Your task to perform on an android device: Clear the shopping cart on ebay. Add logitech g pro to the cart on ebay, then select checkout. Image 0: 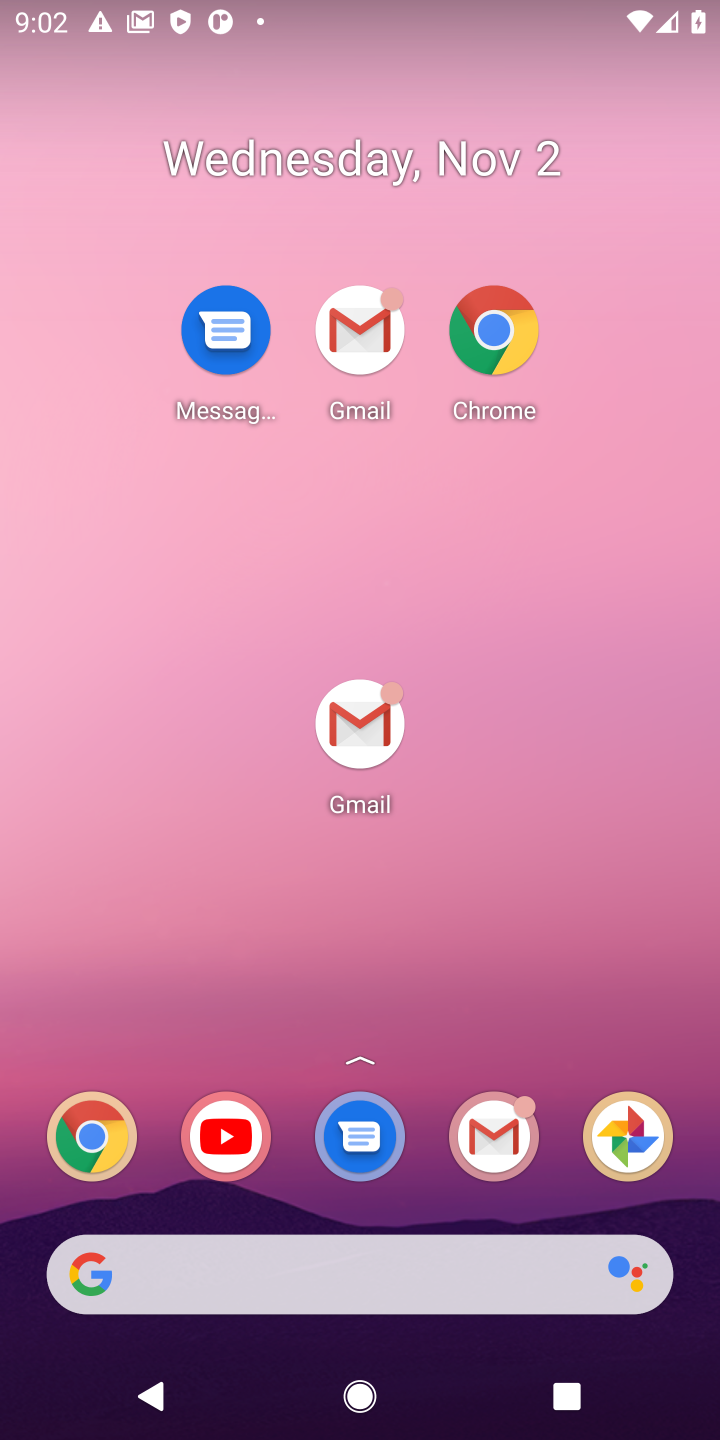
Step 0: drag from (272, 1222) to (274, 64)
Your task to perform on an android device: Clear the shopping cart on ebay. Add logitech g pro to the cart on ebay, then select checkout. Image 1: 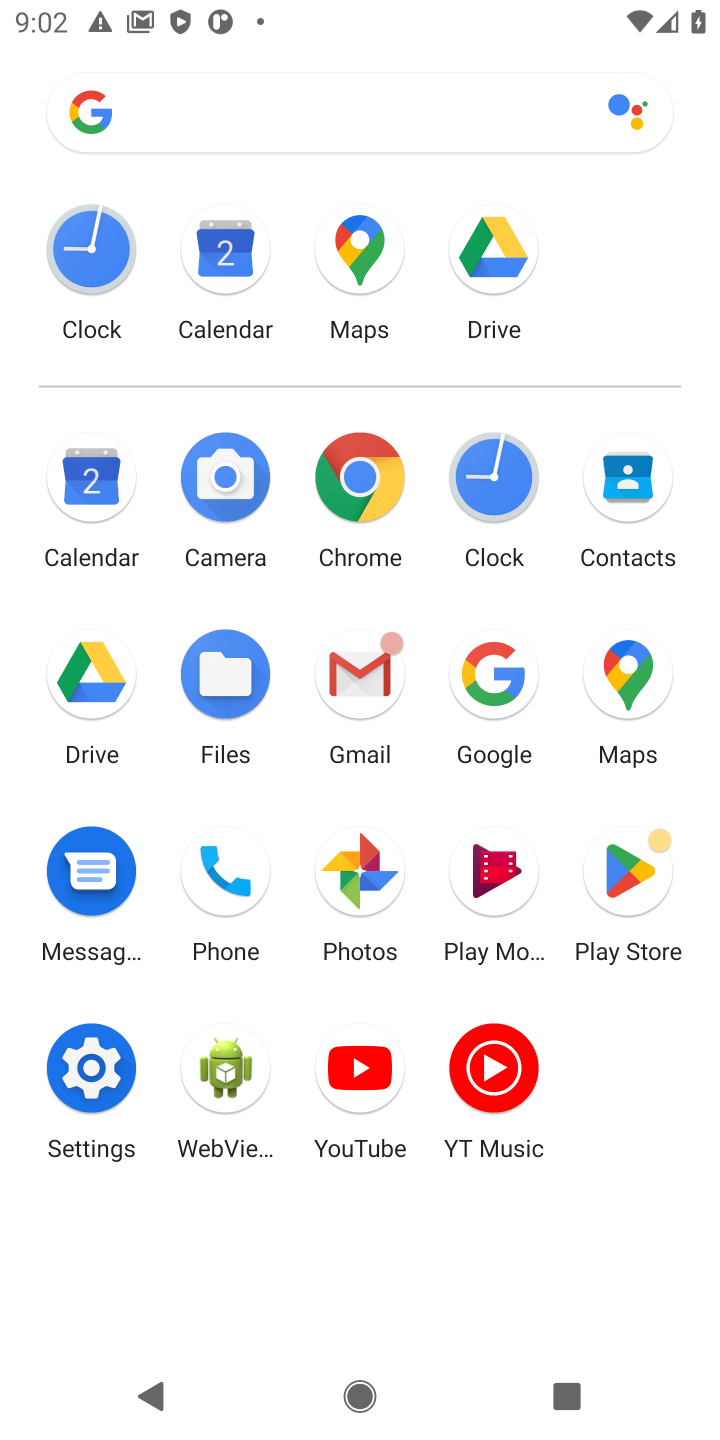
Step 1: click (489, 648)
Your task to perform on an android device: Clear the shopping cart on ebay. Add logitech g pro to the cart on ebay, then select checkout. Image 2: 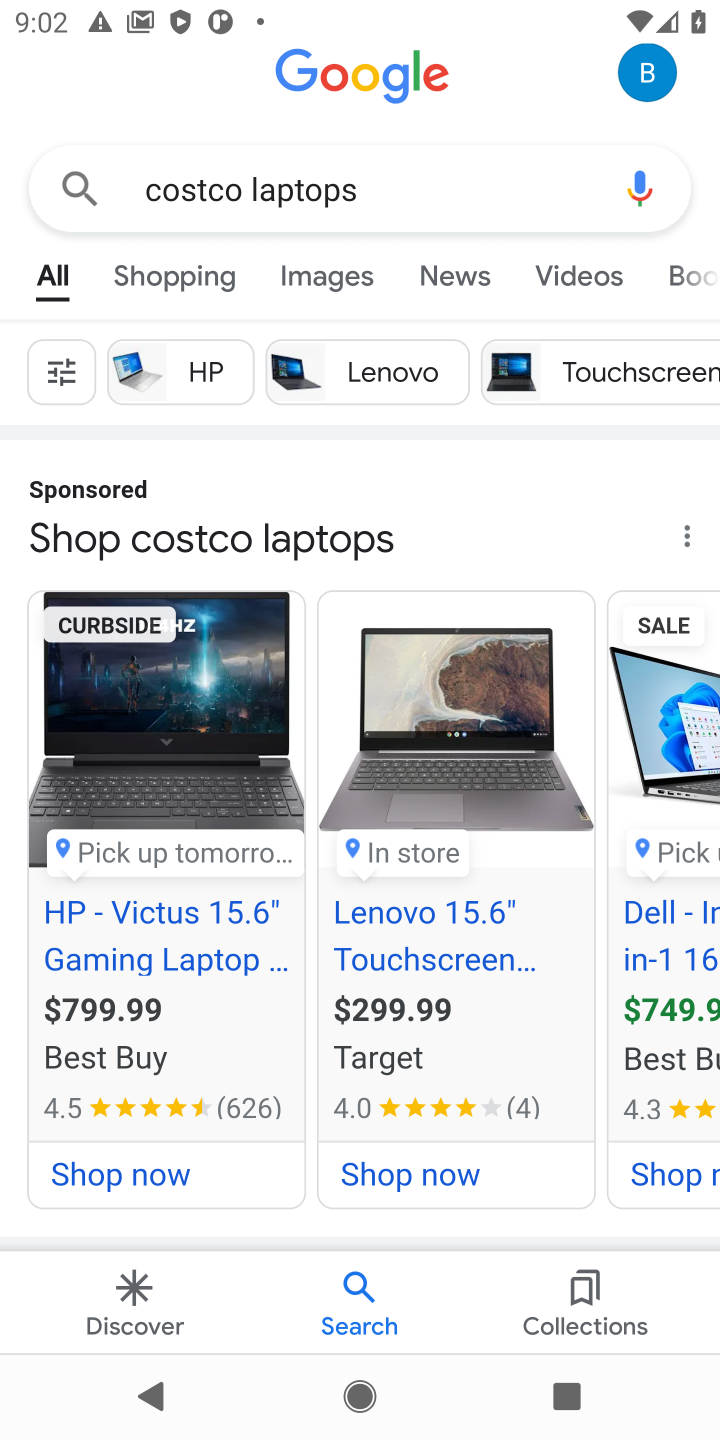
Step 2: click (421, 183)
Your task to perform on an android device: Clear the shopping cart on ebay. Add logitech g pro to the cart on ebay, then select checkout. Image 3: 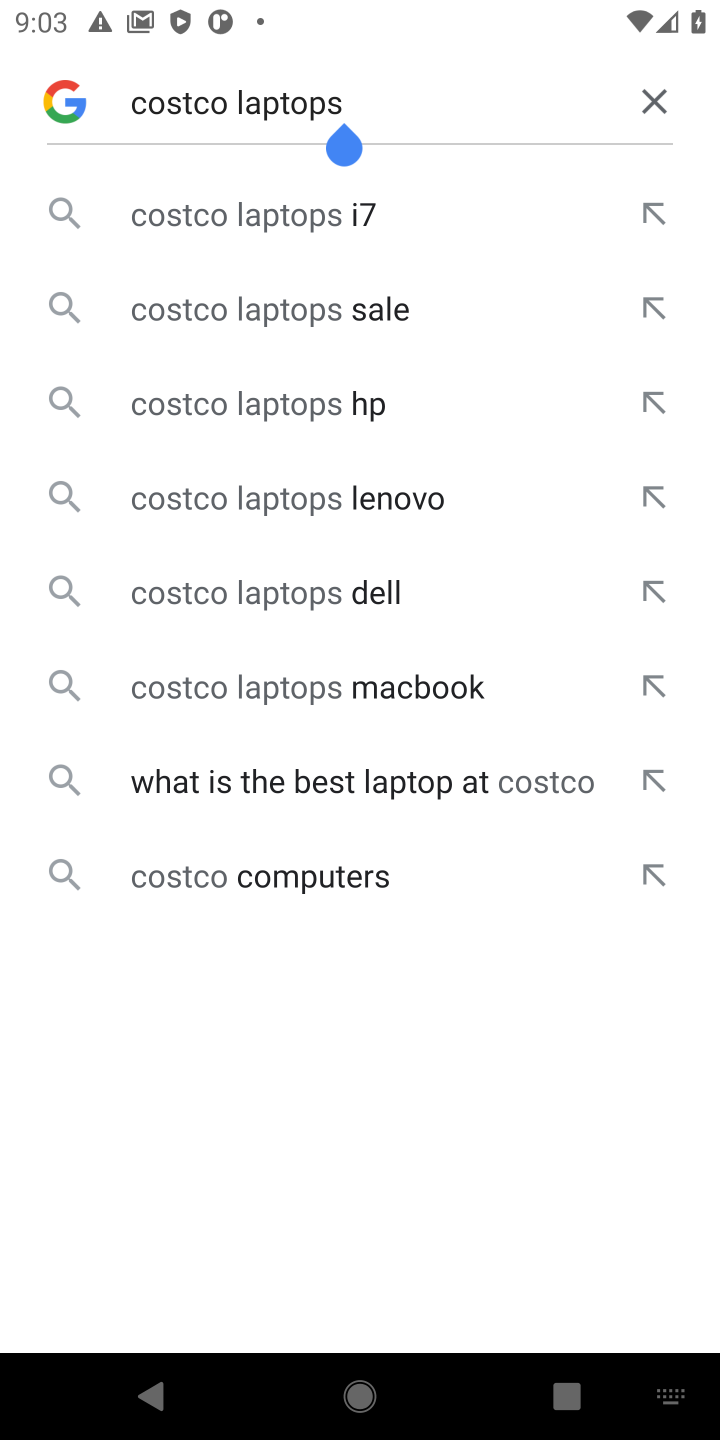
Step 3: click (654, 107)
Your task to perform on an android device: Clear the shopping cart on ebay. Add logitech g pro to the cart on ebay, then select checkout. Image 4: 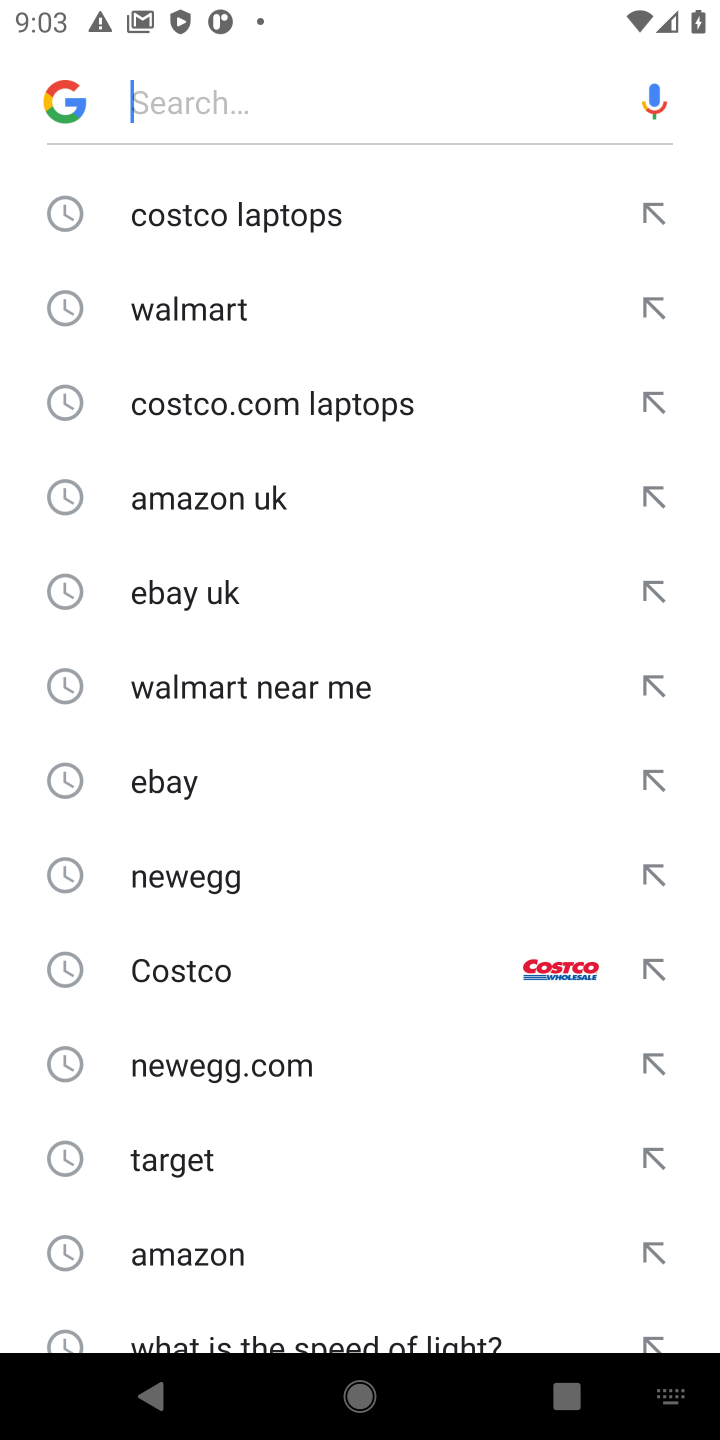
Step 4: click (297, 68)
Your task to perform on an android device: Clear the shopping cart on ebay. Add logitech g pro to the cart on ebay, then select checkout. Image 5: 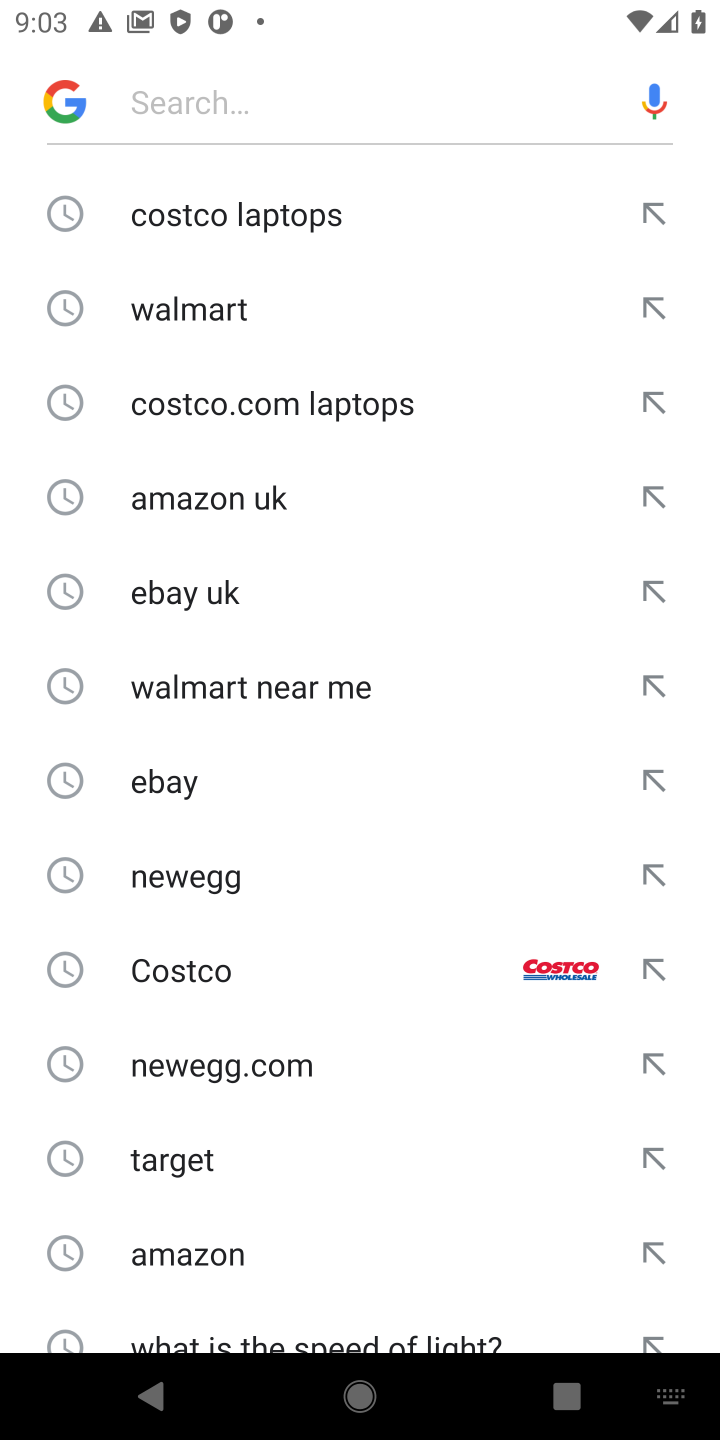
Step 5: type "ebay "
Your task to perform on an android device: Clear the shopping cart on ebay. Add logitech g pro to the cart on ebay, then select checkout. Image 6: 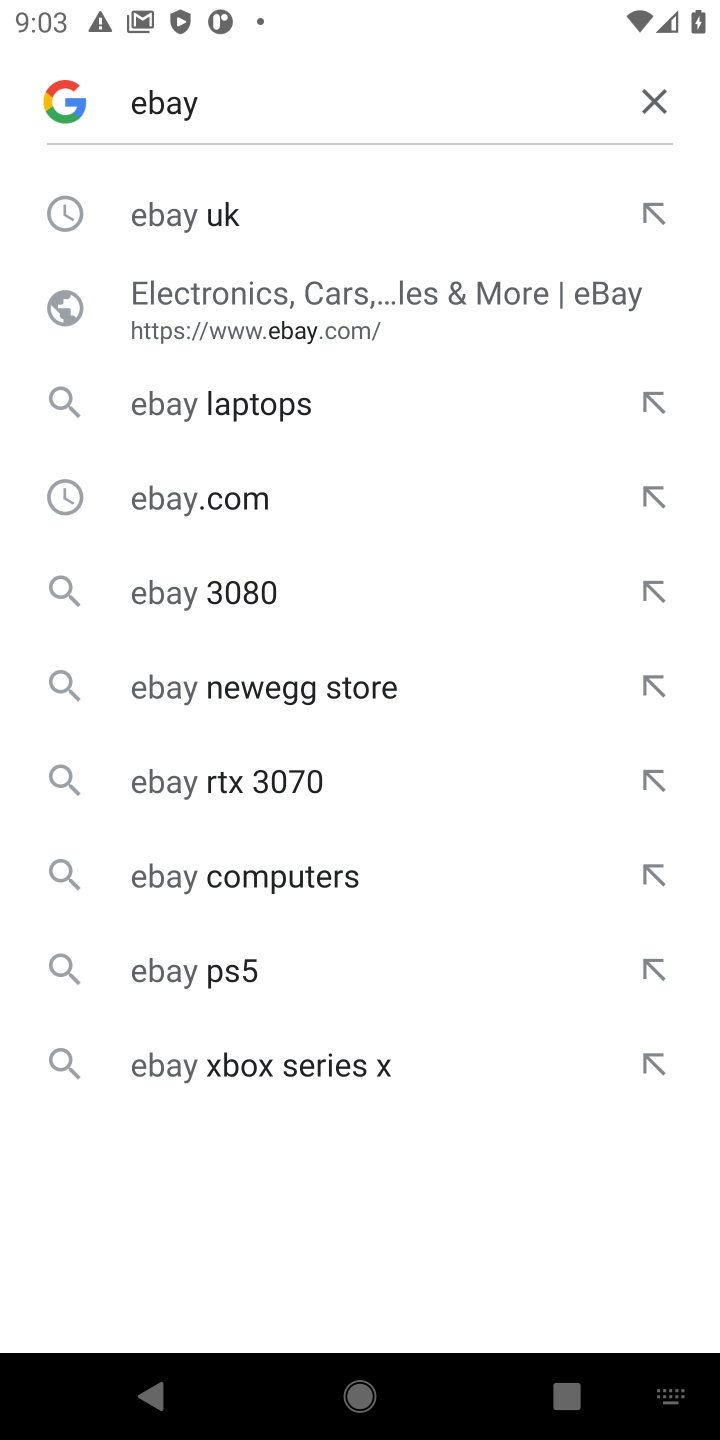
Step 6: click (174, 196)
Your task to perform on an android device: Clear the shopping cart on ebay. Add logitech g pro to the cart on ebay, then select checkout. Image 7: 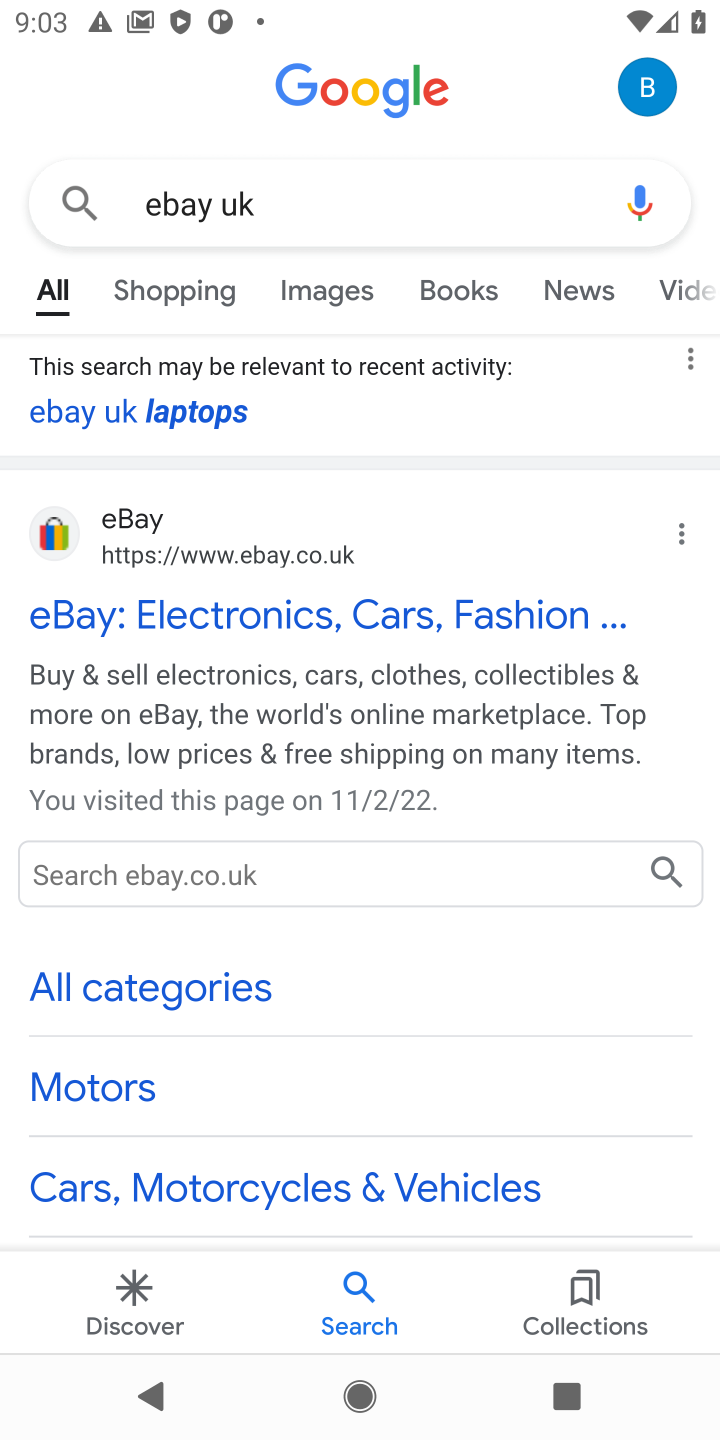
Step 7: click (46, 542)
Your task to perform on an android device: Clear the shopping cart on ebay. Add logitech g pro to the cart on ebay, then select checkout. Image 8: 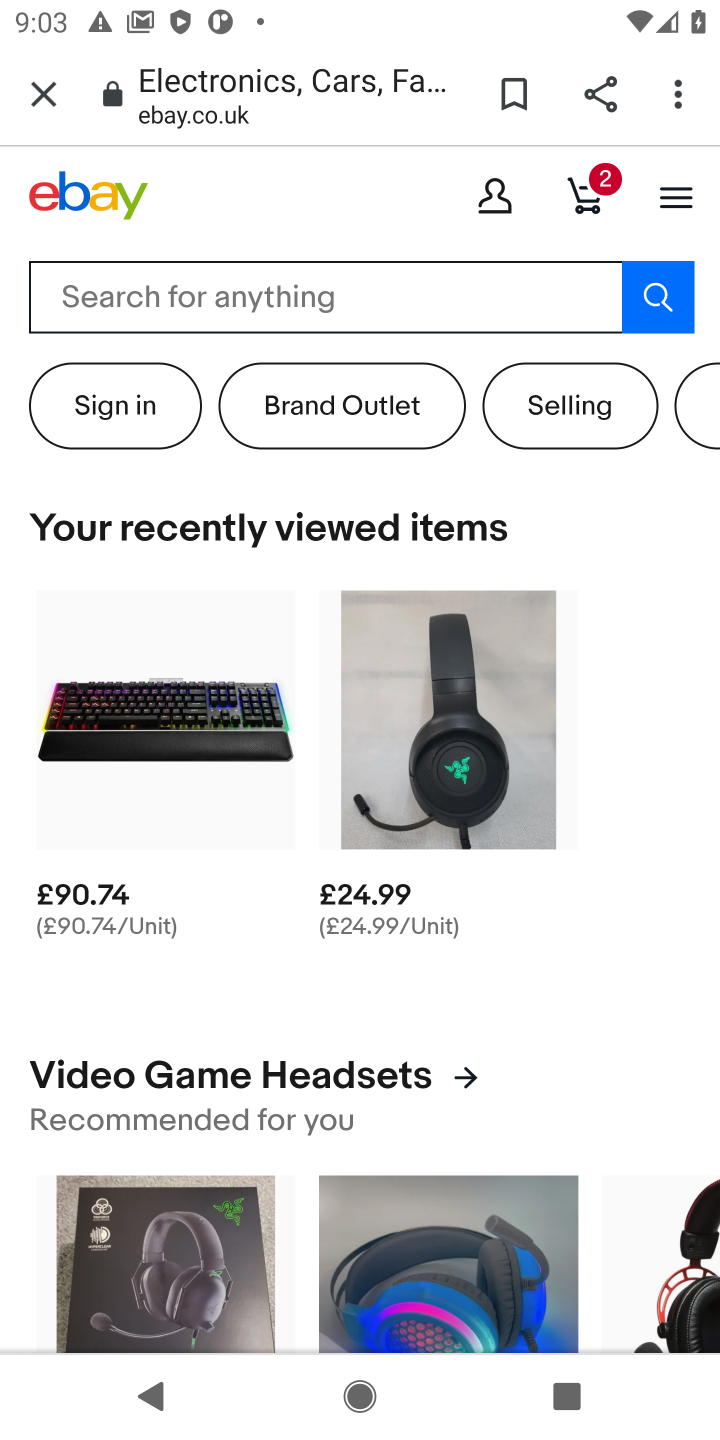
Step 8: click (308, 288)
Your task to perform on an android device: Clear the shopping cart on ebay. Add logitech g pro to the cart on ebay, then select checkout. Image 9: 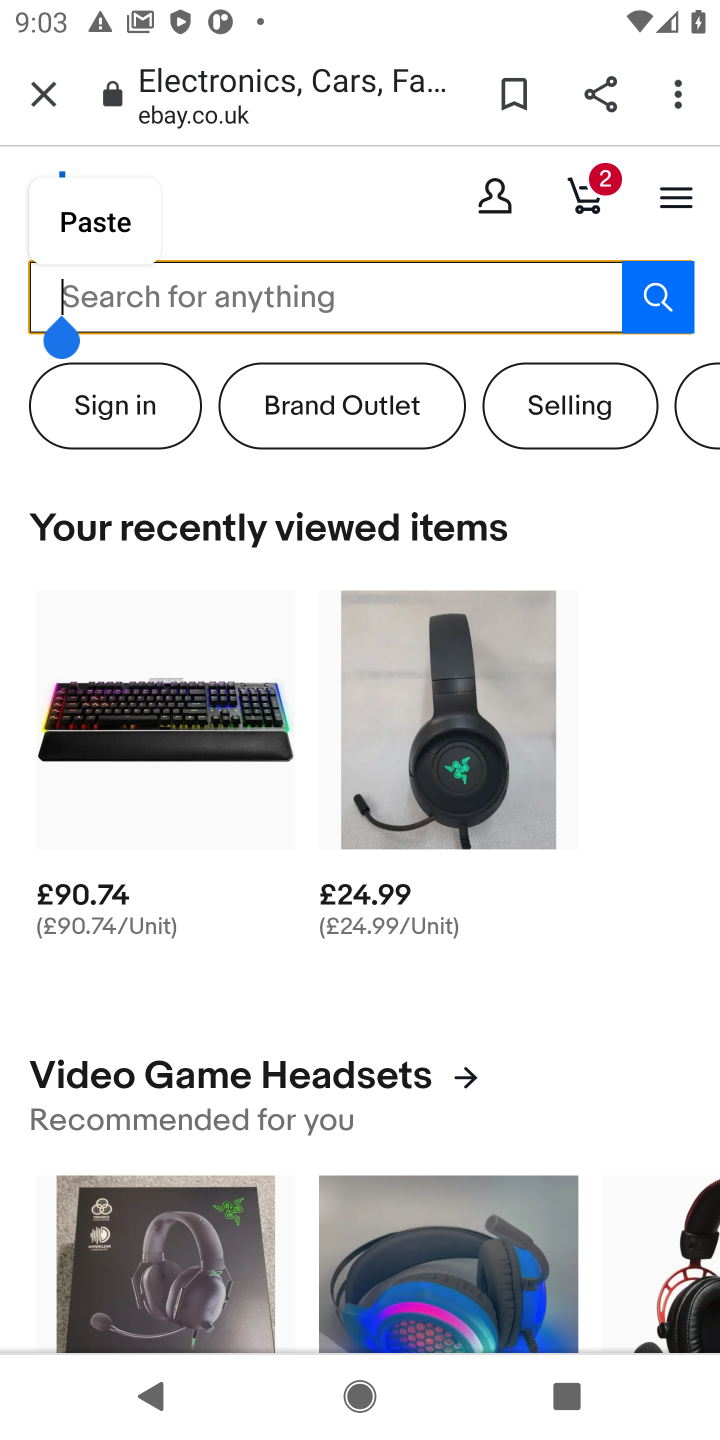
Step 9: click (335, 286)
Your task to perform on an android device: Clear the shopping cart on ebay. Add logitech g pro to the cart on ebay, then select checkout. Image 10: 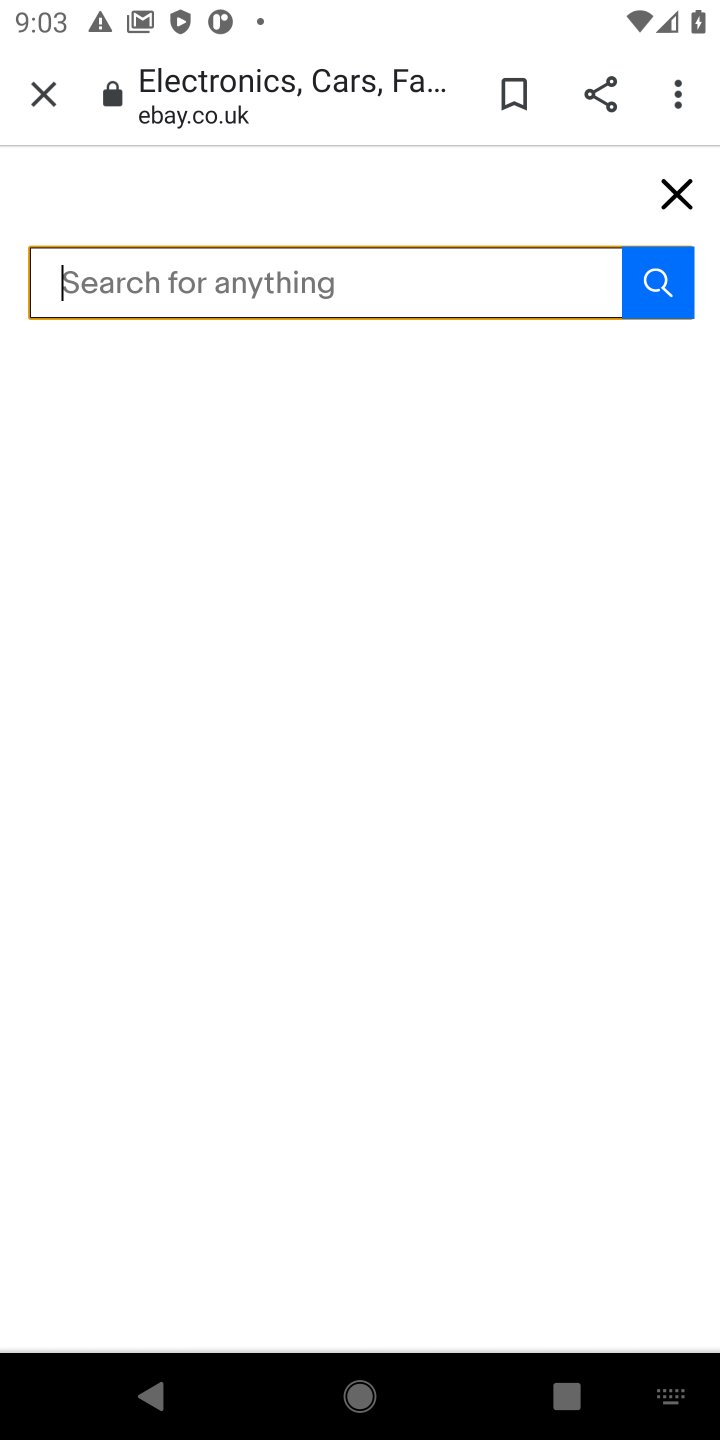
Step 10: type " logitech g pro  "
Your task to perform on an android device: Clear the shopping cart on ebay. Add logitech g pro to the cart on ebay, then select checkout. Image 11: 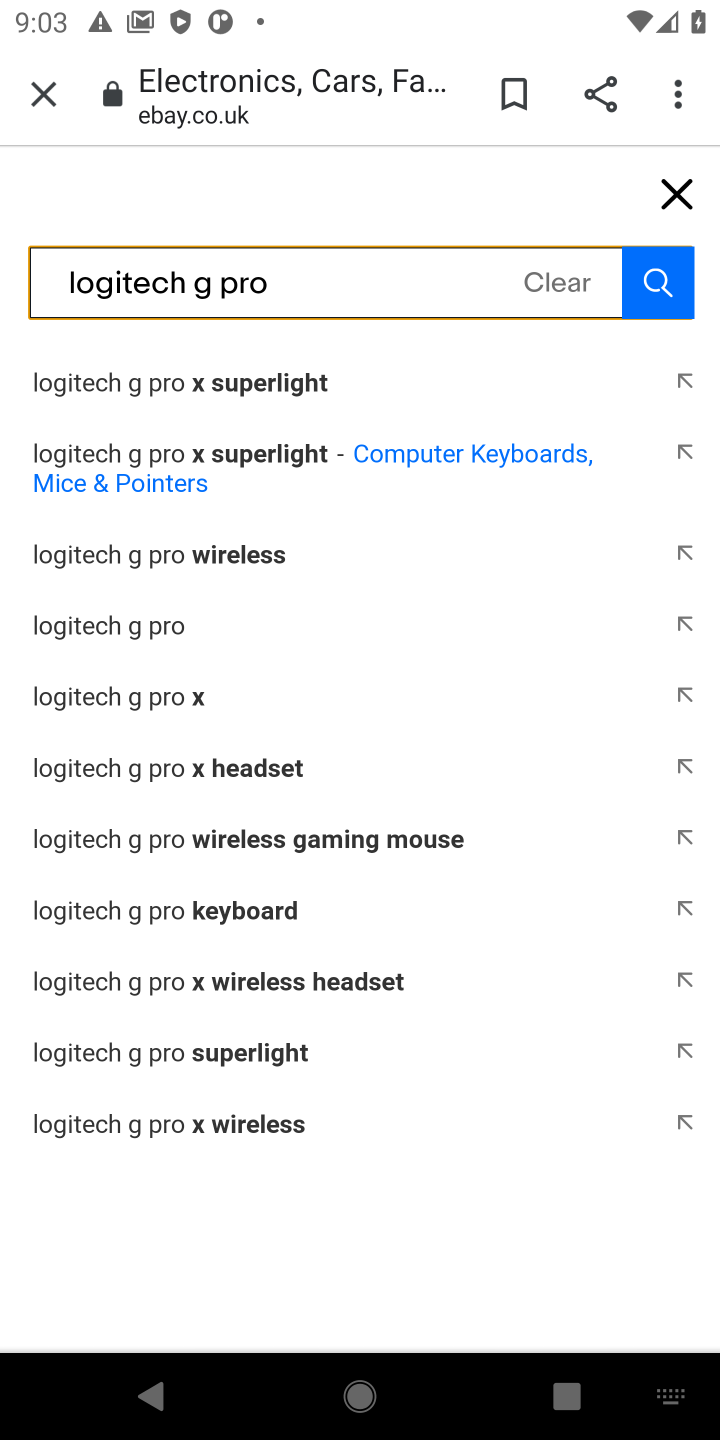
Step 11: click (107, 385)
Your task to perform on an android device: Clear the shopping cart on ebay. Add logitech g pro to the cart on ebay, then select checkout. Image 12: 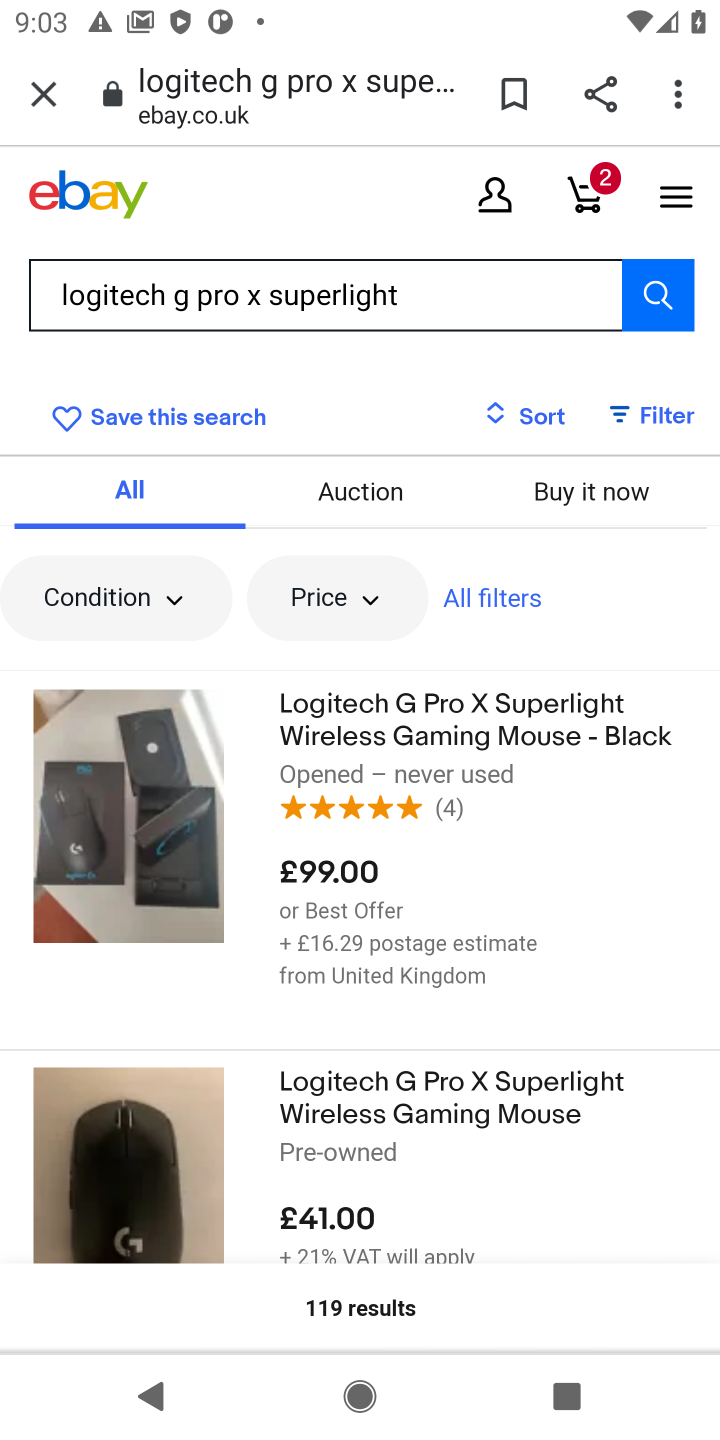
Step 12: click (479, 730)
Your task to perform on an android device: Clear the shopping cart on ebay. Add logitech g pro to the cart on ebay, then select checkout. Image 13: 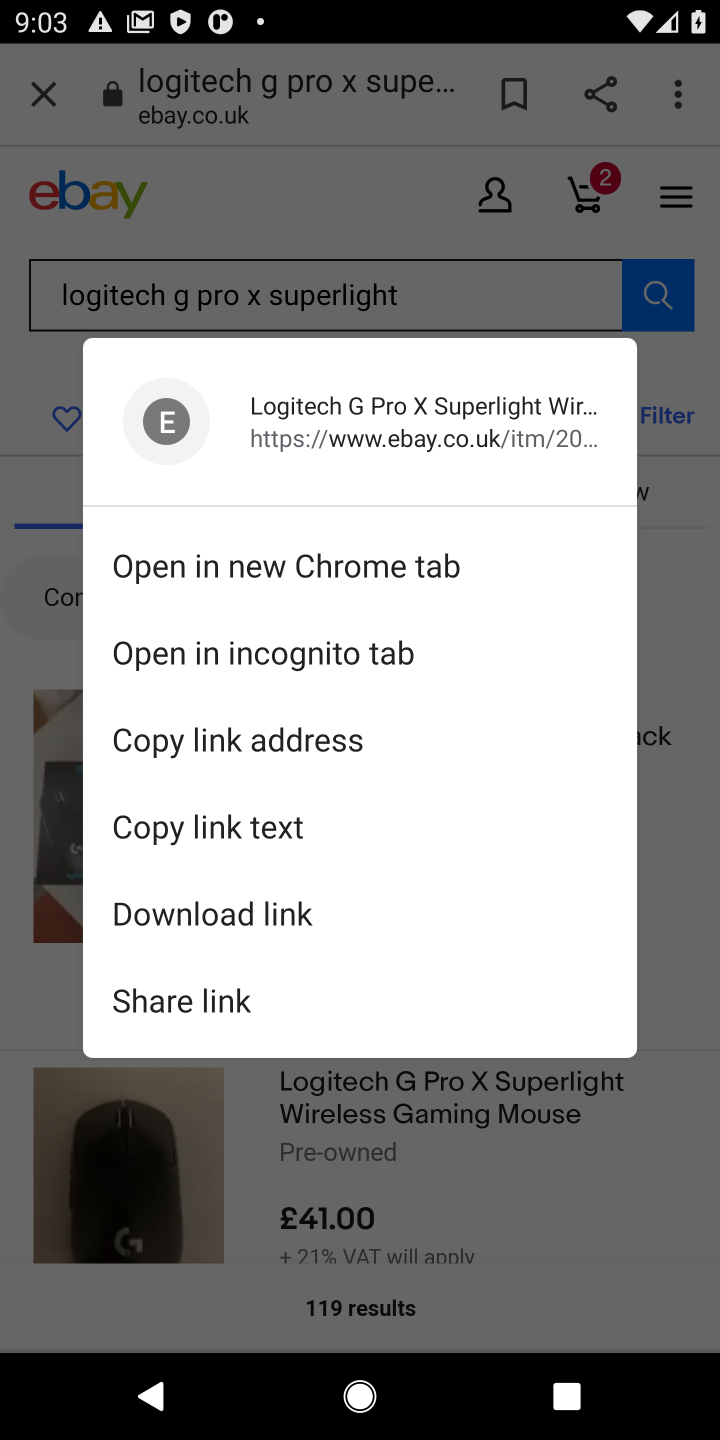
Step 13: click (702, 656)
Your task to perform on an android device: Clear the shopping cart on ebay. Add logitech g pro to the cart on ebay, then select checkout. Image 14: 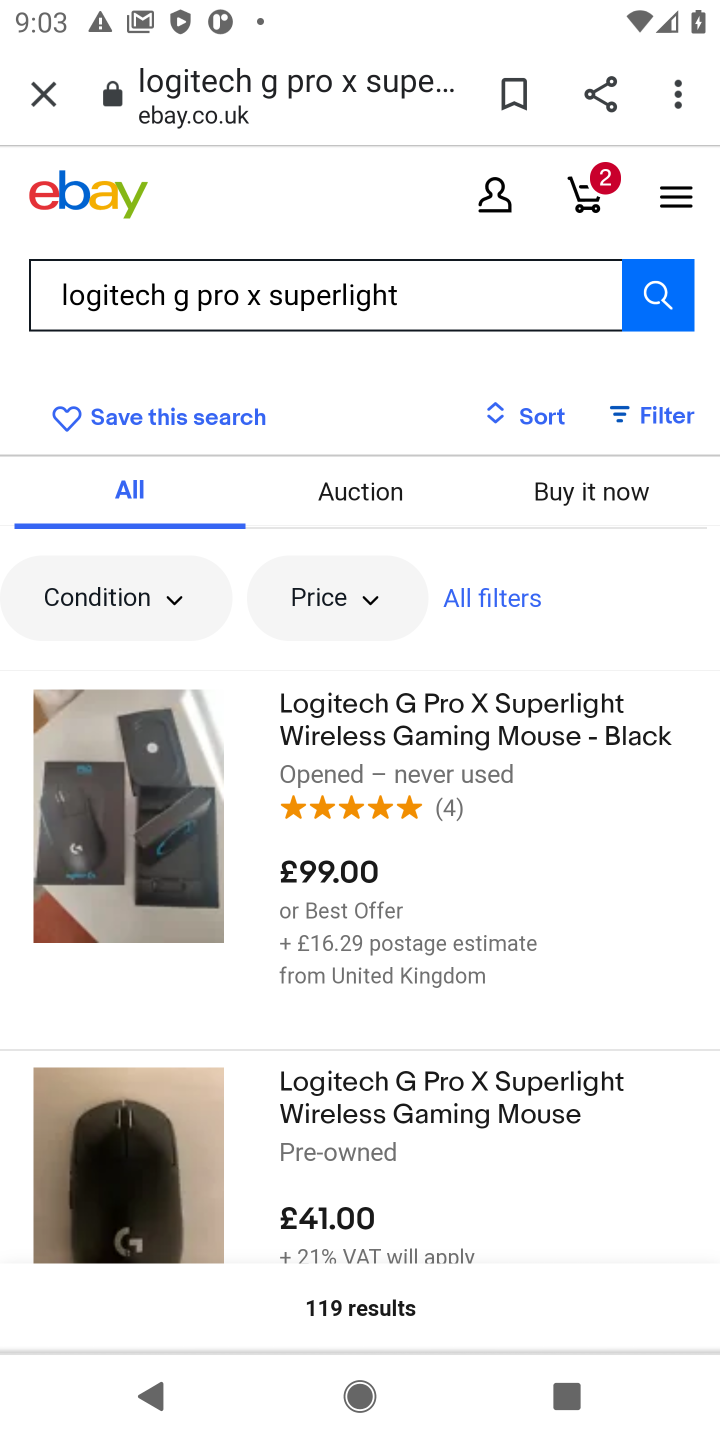
Step 14: click (99, 798)
Your task to perform on an android device: Clear the shopping cart on ebay. Add logitech g pro to the cart on ebay, then select checkout. Image 15: 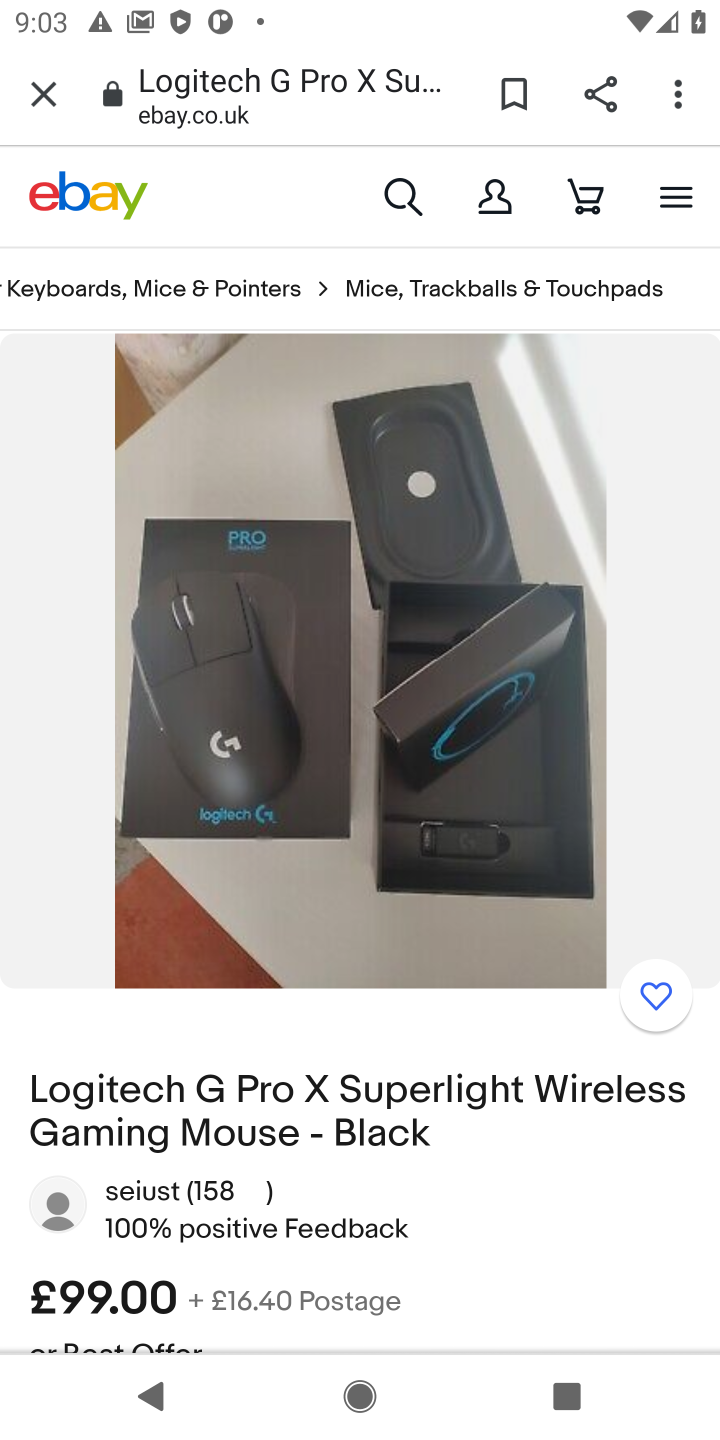
Step 15: drag from (403, 1142) to (426, 448)
Your task to perform on an android device: Clear the shopping cart on ebay. Add logitech g pro to the cart on ebay, then select checkout. Image 16: 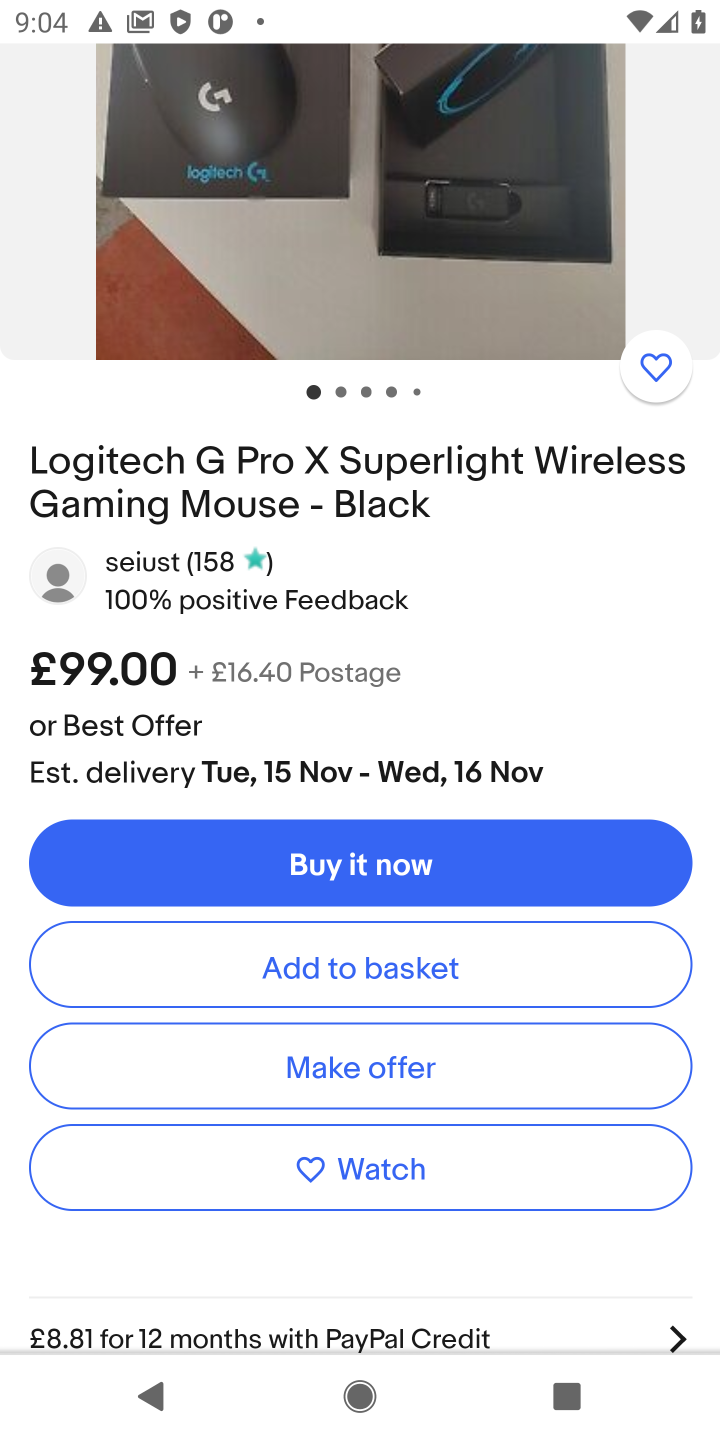
Step 16: click (400, 973)
Your task to perform on an android device: Clear the shopping cart on ebay. Add logitech g pro to the cart on ebay, then select checkout. Image 17: 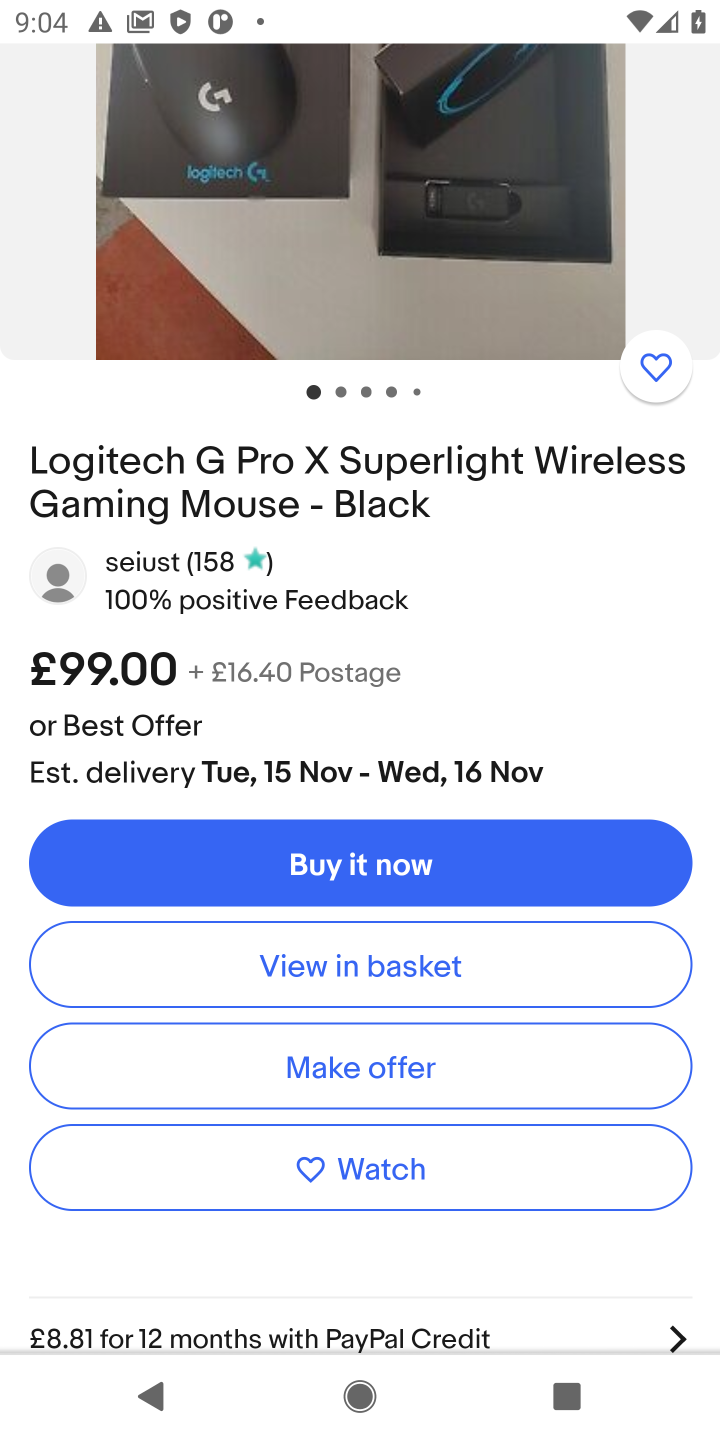
Step 17: task complete